Your task to perform on an android device: What's the price of the new iPhone Image 0: 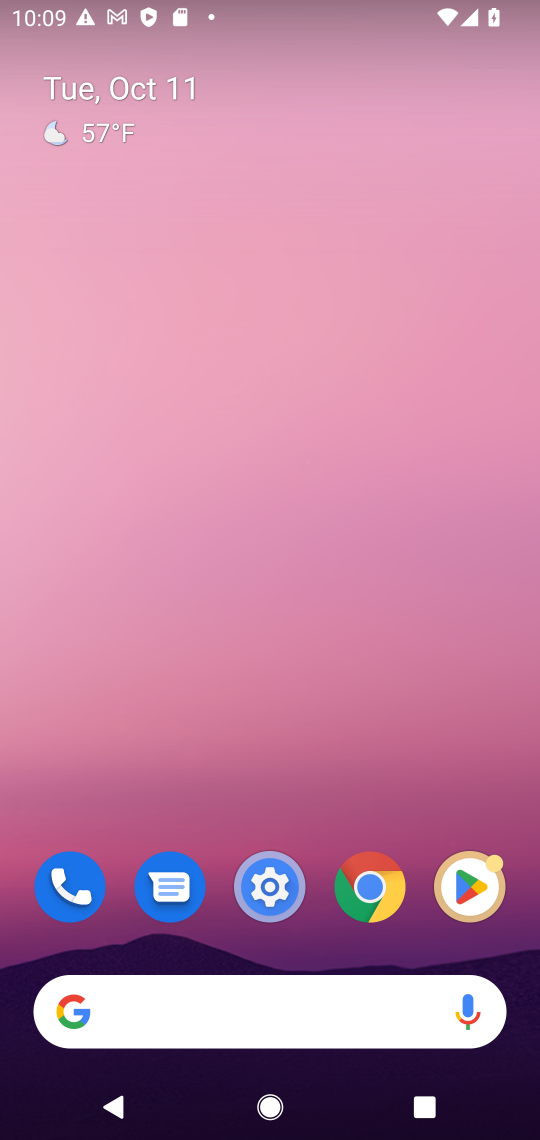
Step 0: press home button
Your task to perform on an android device: What's the price of the new iPhone Image 1: 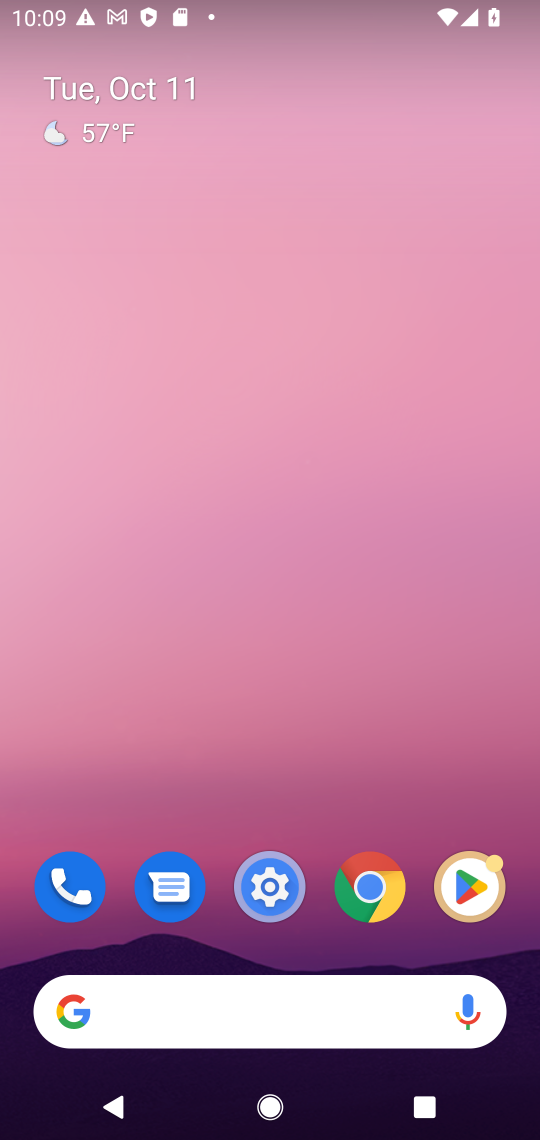
Step 1: click (124, 1002)
Your task to perform on an android device: What's the price of the new iPhone Image 2: 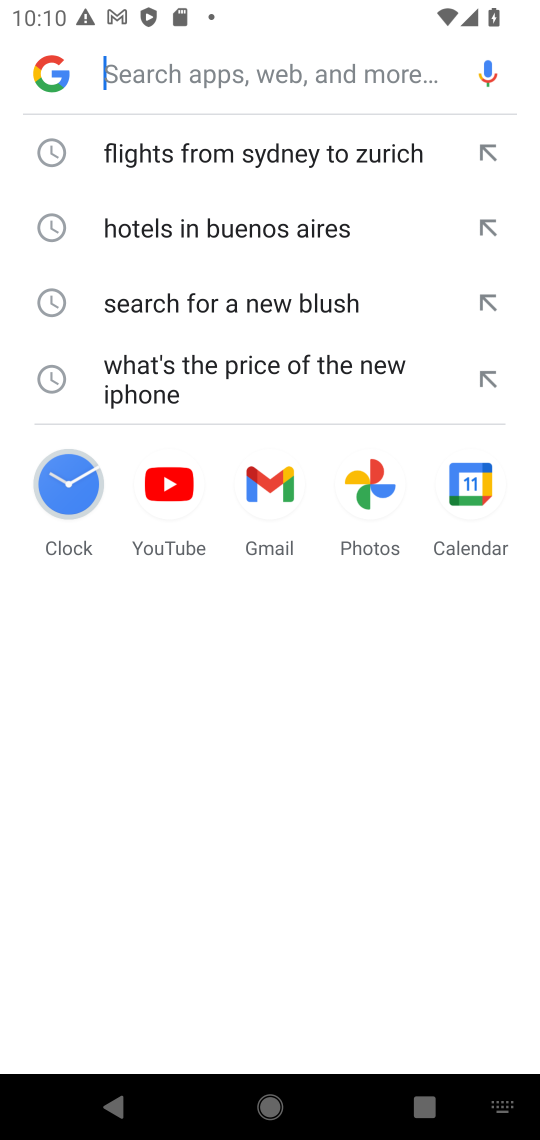
Step 2: type "What's the price of the new iPhone"
Your task to perform on an android device: What's the price of the new iPhone Image 3: 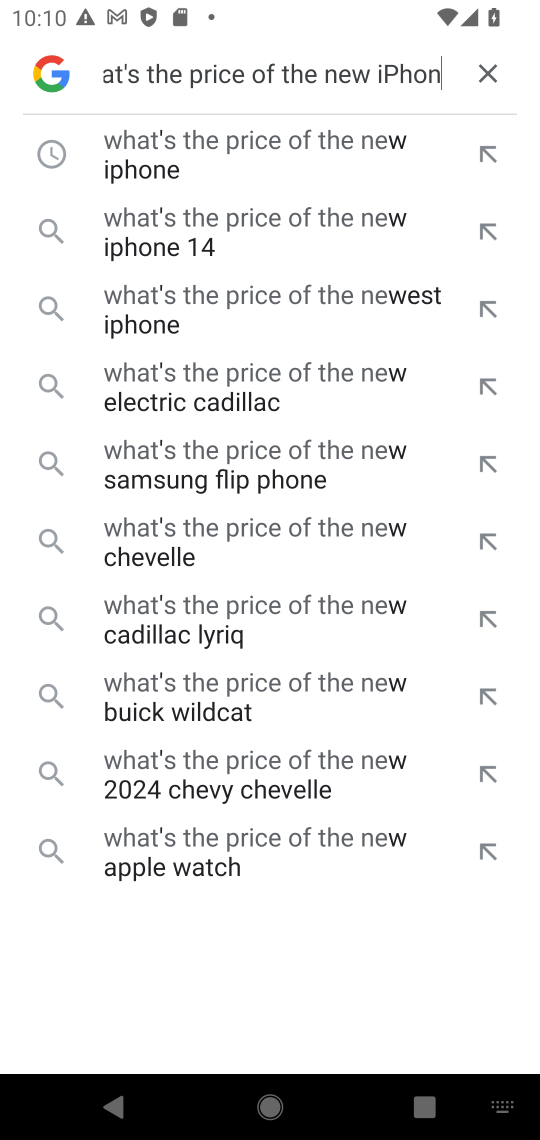
Step 3: press enter
Your task to perform on an android device: What's the price of the new iPhone Image 4: 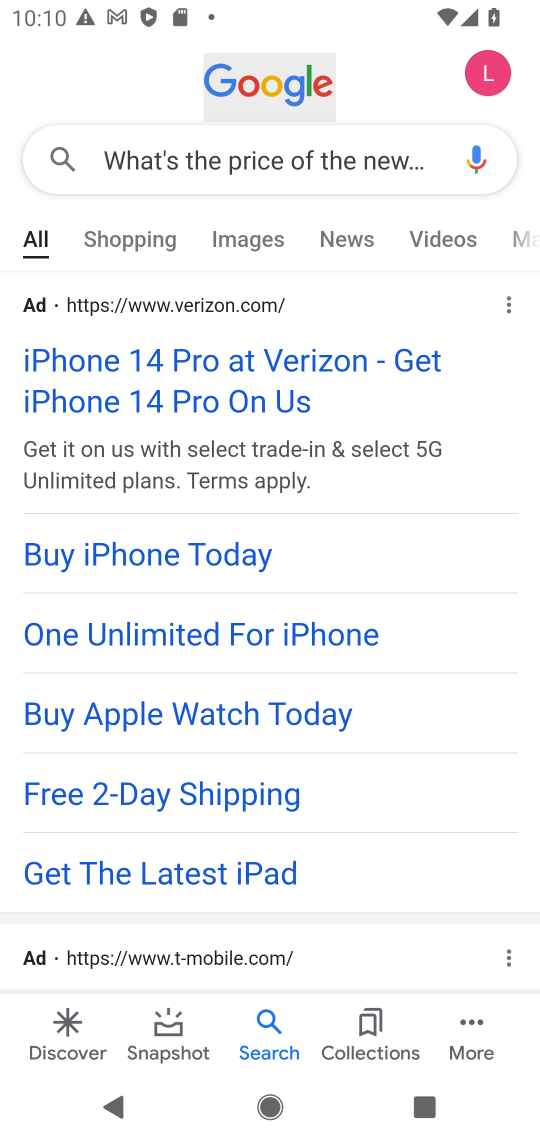
Step 4: drag from (446, 721) to (431, 450)
Your task to perform on an android device: What's the price of the new iPhone Image 5: 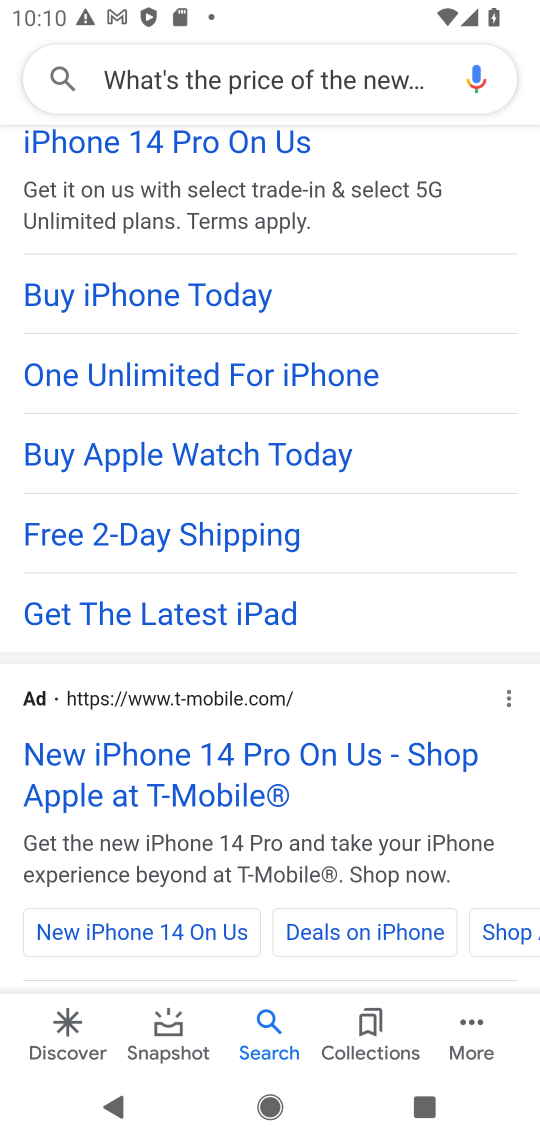
Step 5: click (348, 756)
Your task to perform on an android device: What's the price of the new iPhone Image 6: 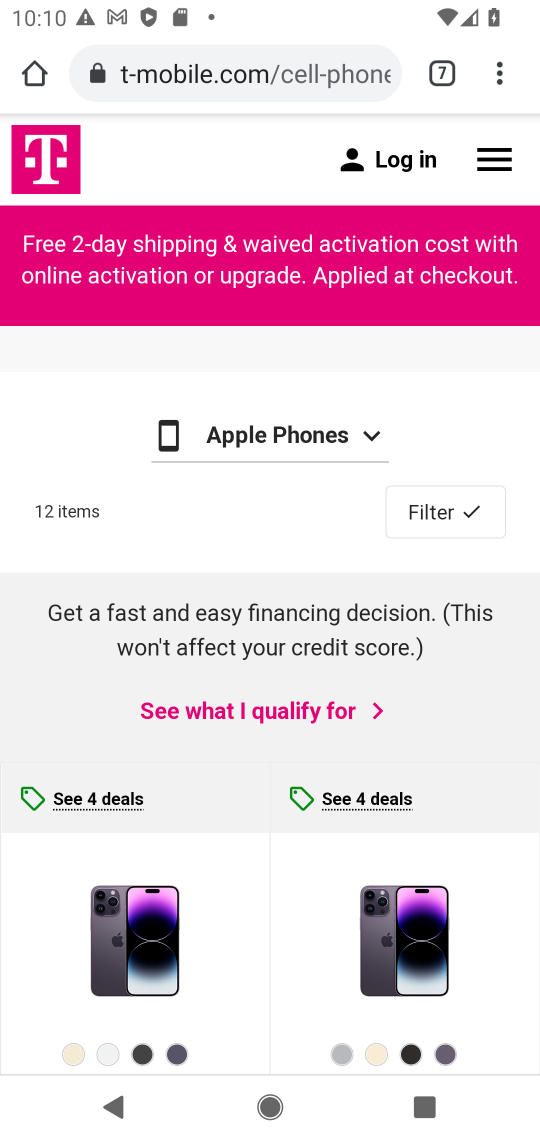
Step 6: task complete